Your task to perform on an android device: What's the weather today? Image 0: 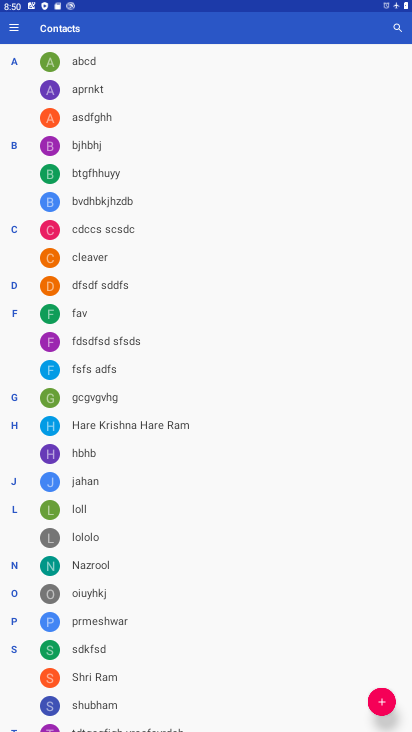
Step 0: press home button
Your task to perform on an android device: What's the weather today? Image 1: 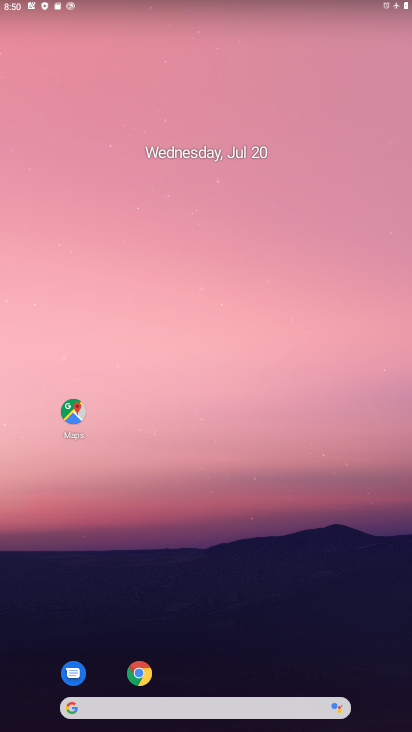
Step 1: drag from (243, 730) to (249, 256)
Your task to perform on an android device: What's the weather today? Image 2: 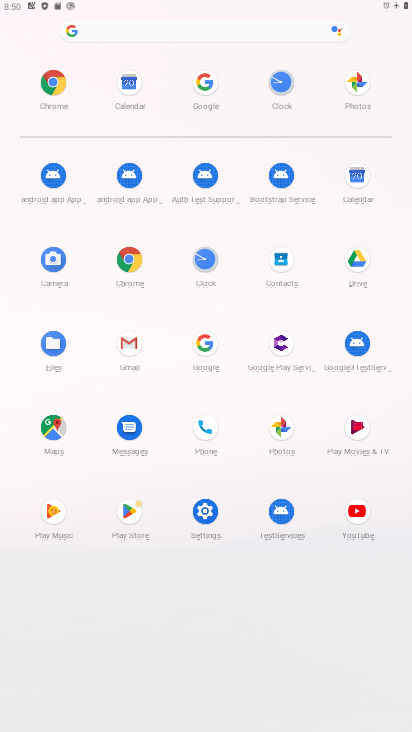
Step 2: click (209, 341)
Your task to perform on an android device: What's the weather today? Image 3: 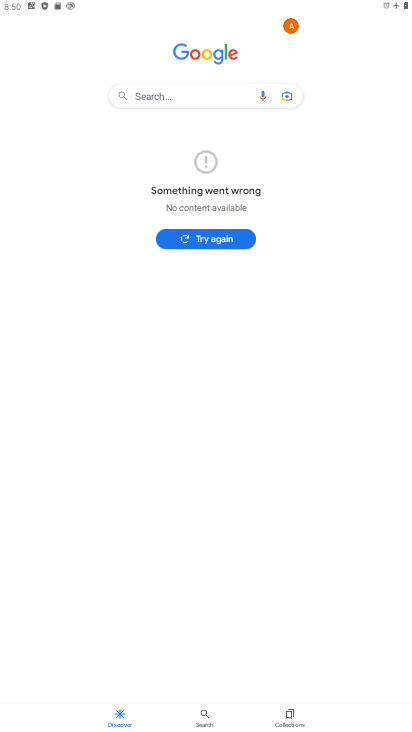
Step 3: task complete